Your task to perform on an android device: empty trash in google photos Image 0: 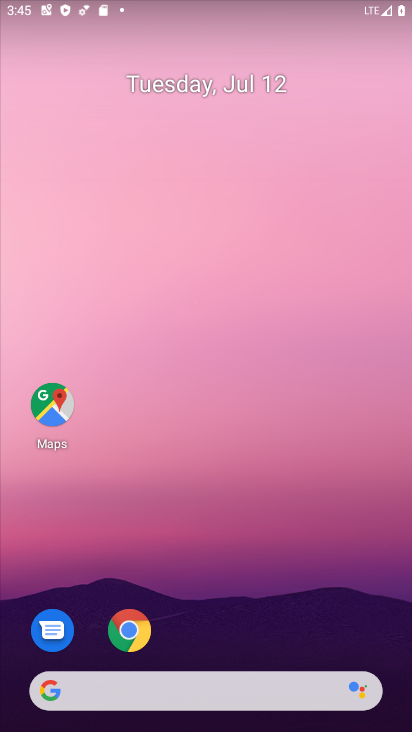
Step 0: drag from (311, 659) to (396, 12)
Your task to perform on an android device: empty trash in google photos Image 1: 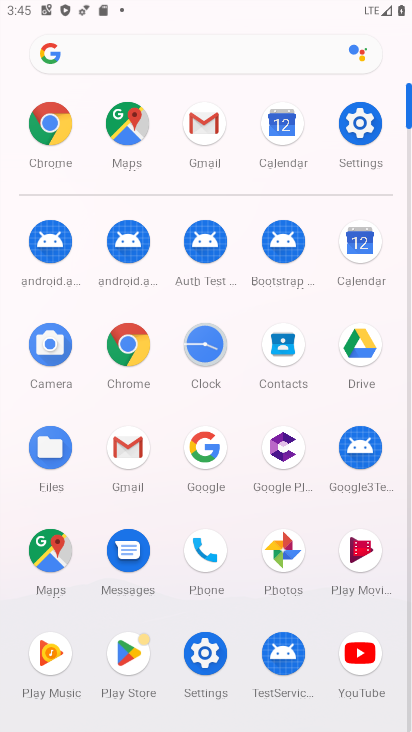
Step 1: click (281, 556)
Your task to perform on an android device: empty trash in google photos Image 2: 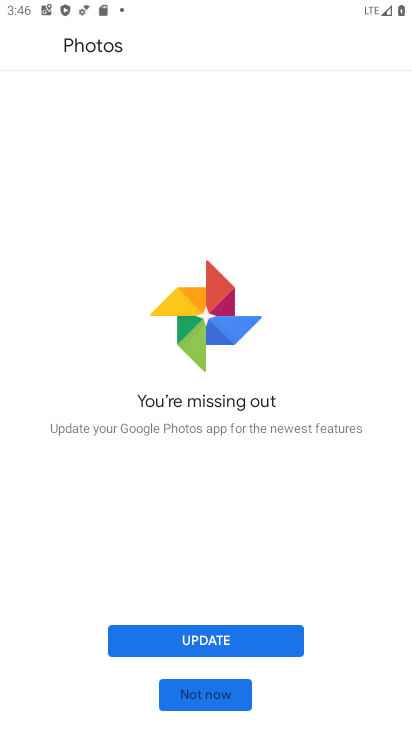
Step 2: press home button
Your task to perform on an android device: empty trash in google photos Image 3: 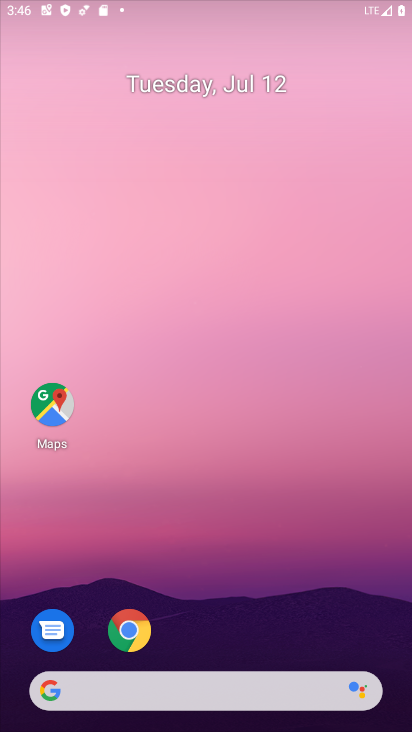
Step 3: drag from (287, 601) to (375, 12)
Your task to perform on an android device: empty trash in google photos Image 4: 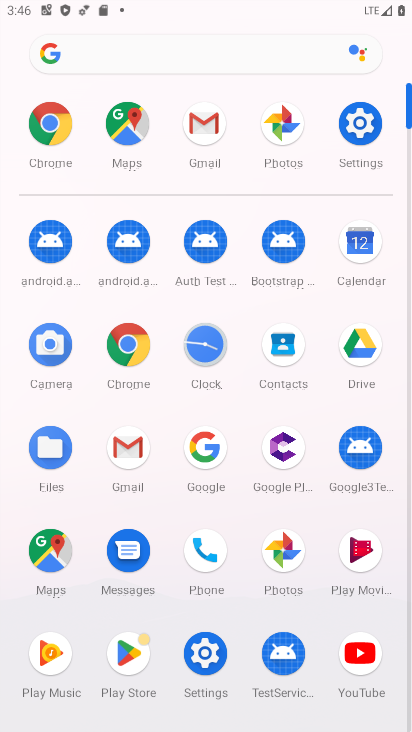
Step 4: click (281, 560)
Your task to perform on an android device: empty trash in google photos Image 5: 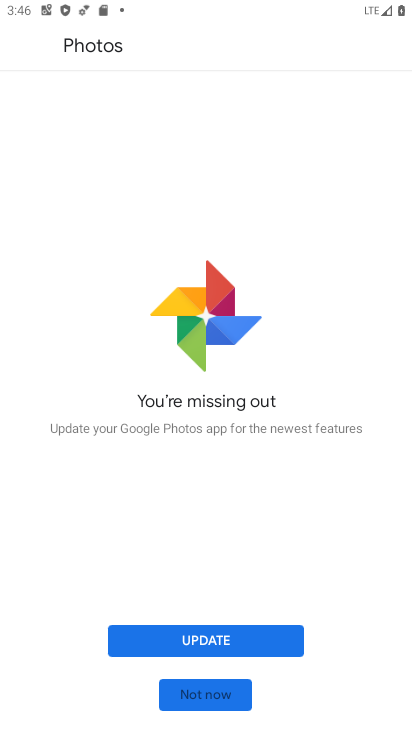
Step 5: click (243, 639)
Your task to perform on an android device: empty trash in google photos Image 6: 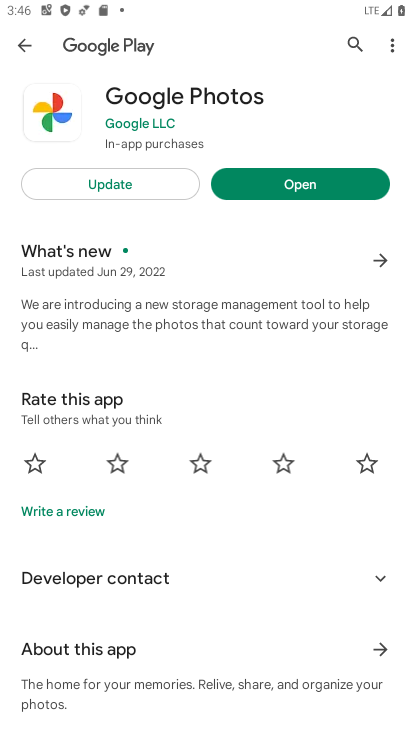
Step 6: click (149, 178)
Your task to perform on an android device: empty trash in google photos Image 7: 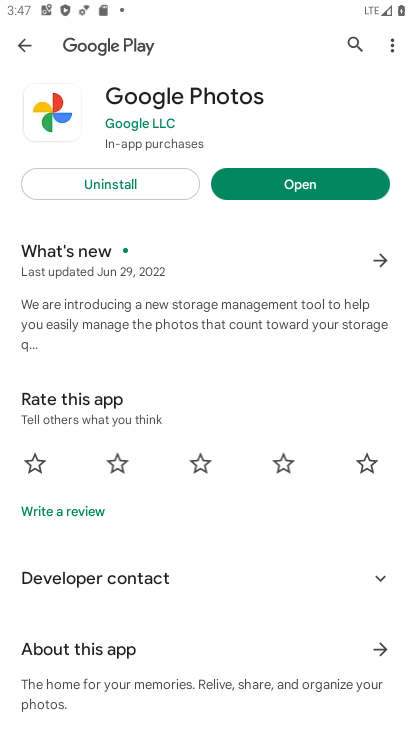
Step 7: click (317, 189)
Your task to perform on an android device: empty trash in google photos Image 8: 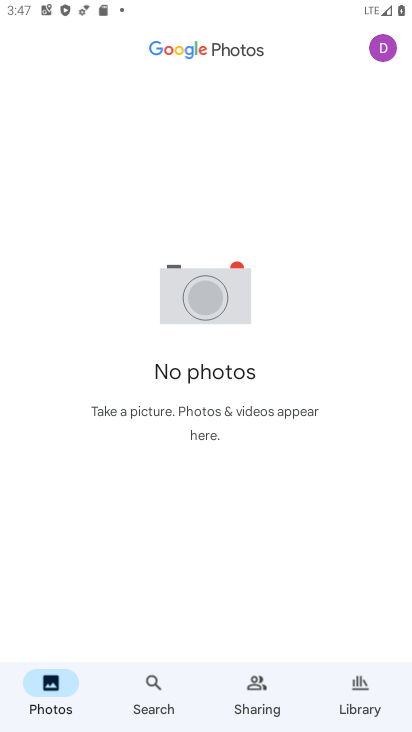
Step 8: click (381, 50)
Your task to perform on an android device: empty trash in google photos Image 9: 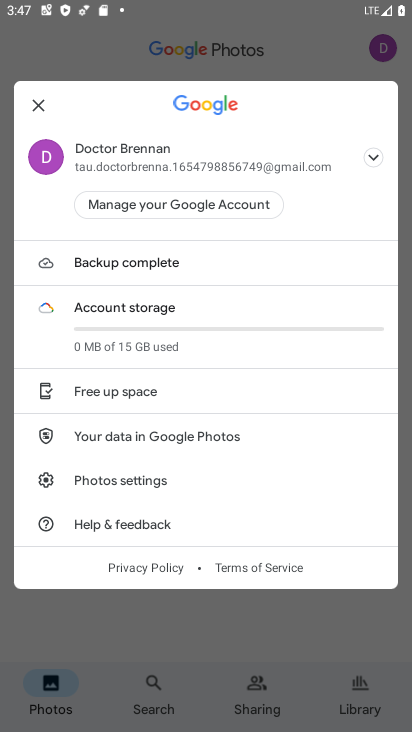
Step 9: click (183, 631)
Your task to perform on an android device: empty trash in google photos Image 10: 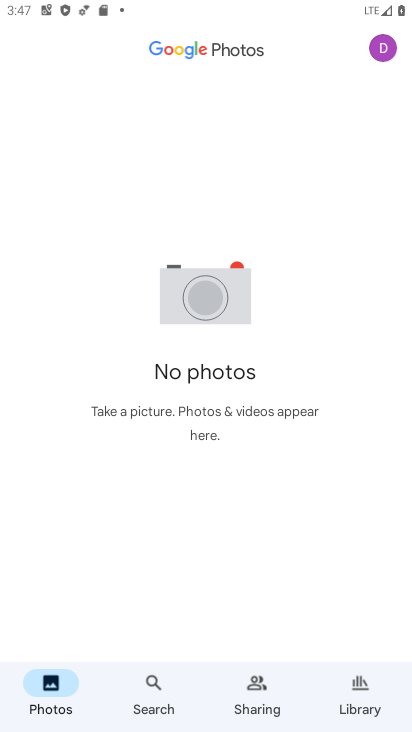
Step 10: click (353, 700)
Your task to perform on an android device: empty trash in google photos Image 11: 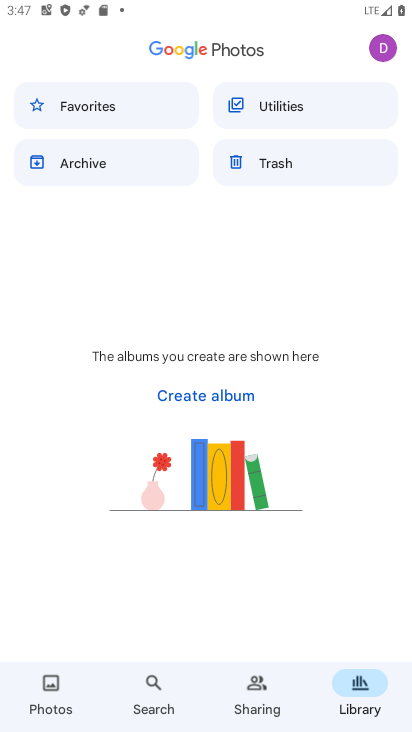
Step 11: click (250, 152)
Your task to perform on an android device: empty trash in google photos Image 12: 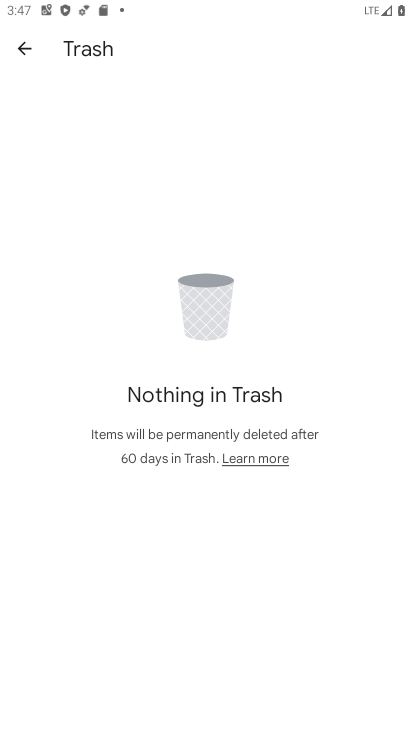
Step 12: task complete